Your task to perform on an android device: Toggle the flashlight Image 0: 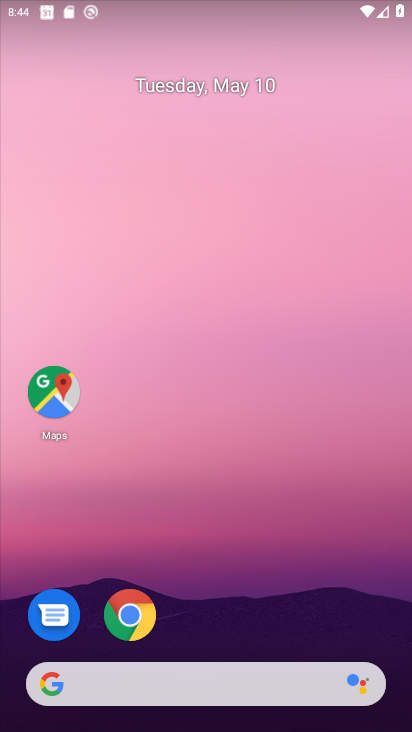
Step 0: click (396, 653)
Your task to perform on an android device: Toggle the flashlight Image 1: 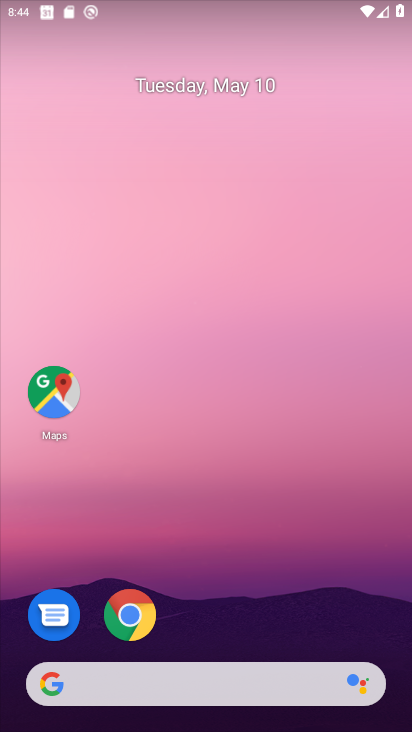
Step 1: drag from (182, 627) to (269, 29)
Your task to perform on an android device: Toggle the flashlight Image 2: 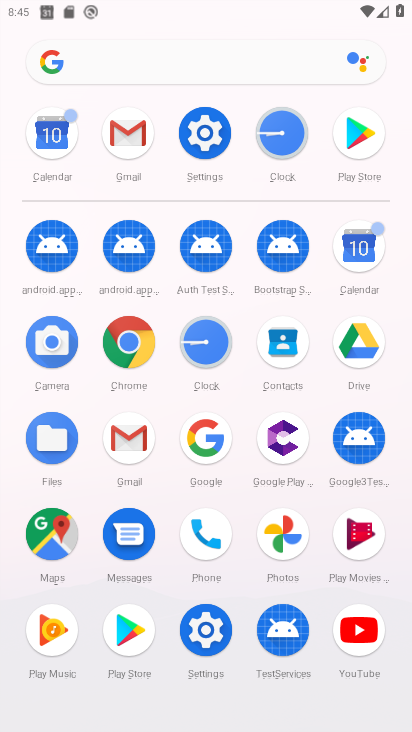
Step 2: click (210, 146)
Your task to perform on an android device: Toggle the flashlight Image 3: 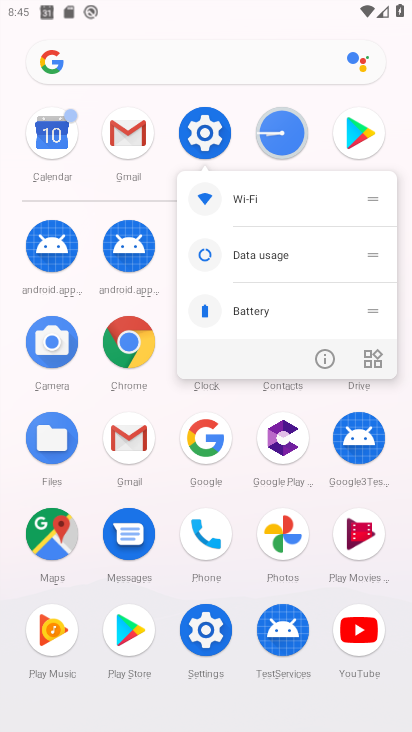
Step 3: click (332, 352)
Your task to perform on an android device: Toggle the flashlight Image 4: 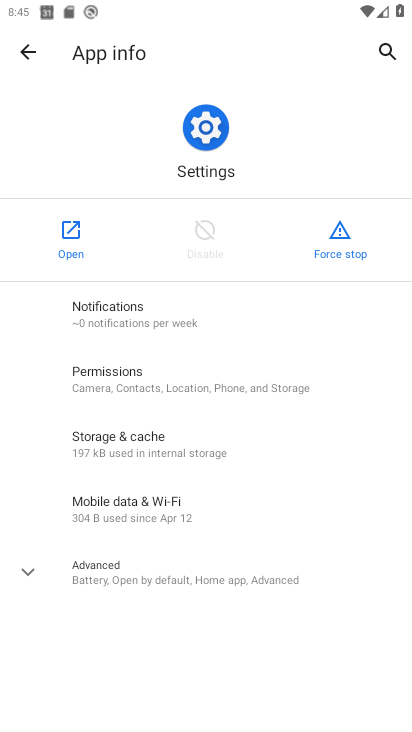
Step 4: click (61, 243)
Your task to perform on an android device: Toggle the flashlight Image 5: 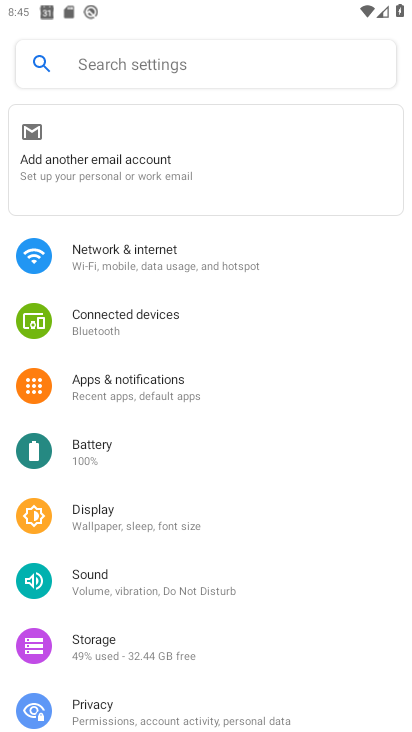
Step 5: click (201, 68)
Your task to perform on an android device: Toggle the flashlight Image 6: 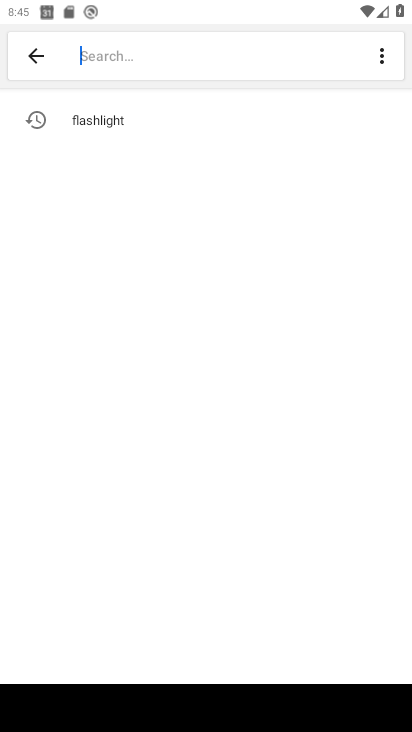
Step 6: click (131, 129)
Your task to perform on an android device: Toggle the flashlight Image 7: 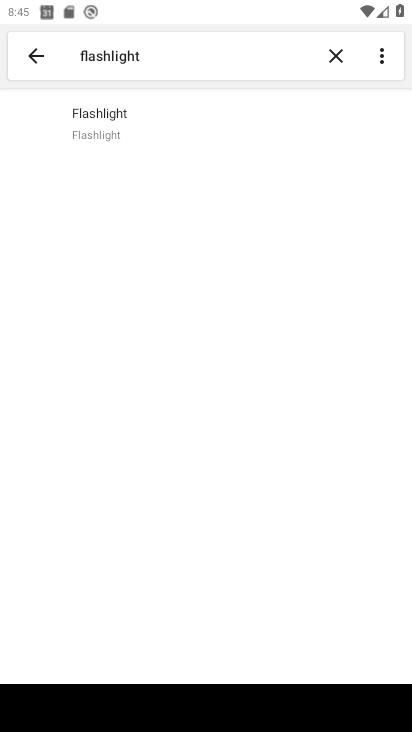
Step 7: task complete